Your task to perform on an android device: change notification settings in the gmail app Image 0: 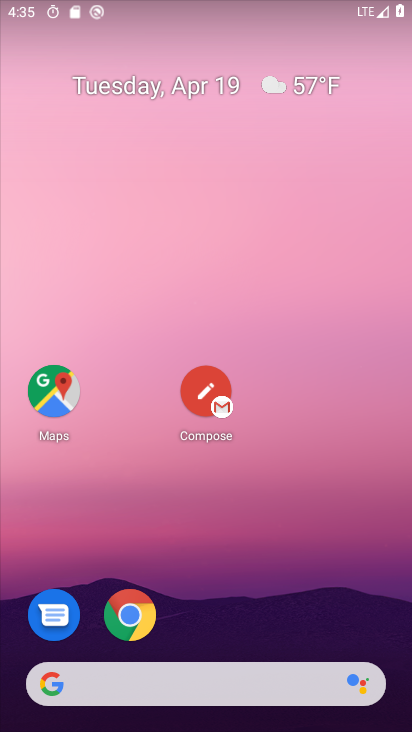
Step 0: drag from (276, 662) to (246, 137)
Your task to perform on an android device: change notification settings in the gmail app Image 1: 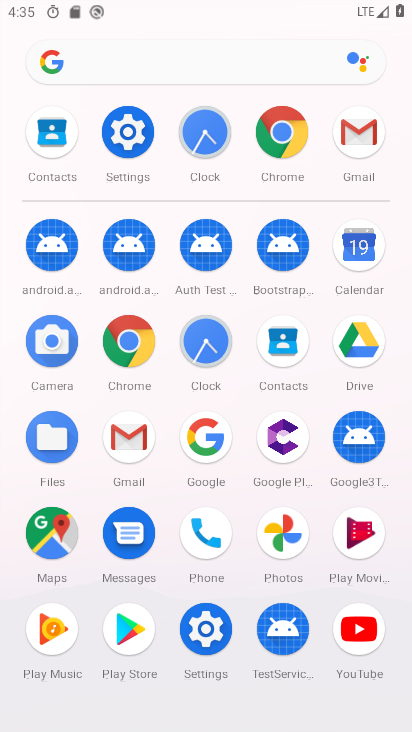
Step 1: click (137, 442)
Your task to perform on an android device: change notification settings in the gmail app Image 2: 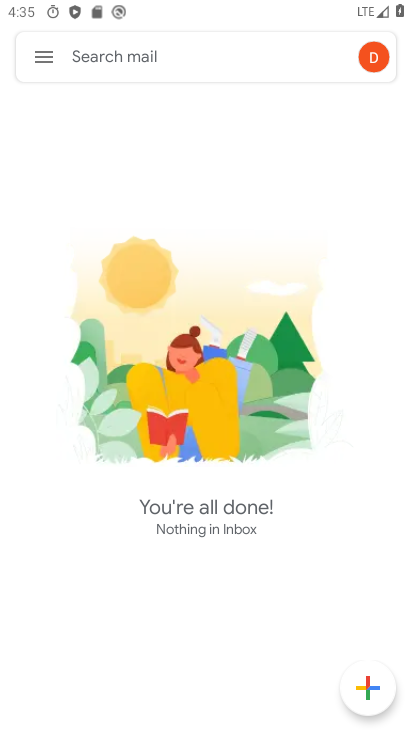
Step 2: click (36, 49)
Your task to perform on an android device: change notification settings in the gmail app Image 3: 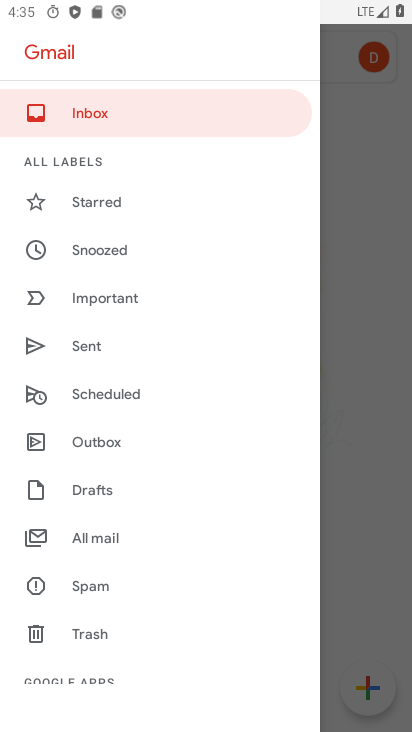
Step 3: drag from (154, 589) to (172, 136)
Your task to perform on an android device: change notification settings in the gmail app Image 4: 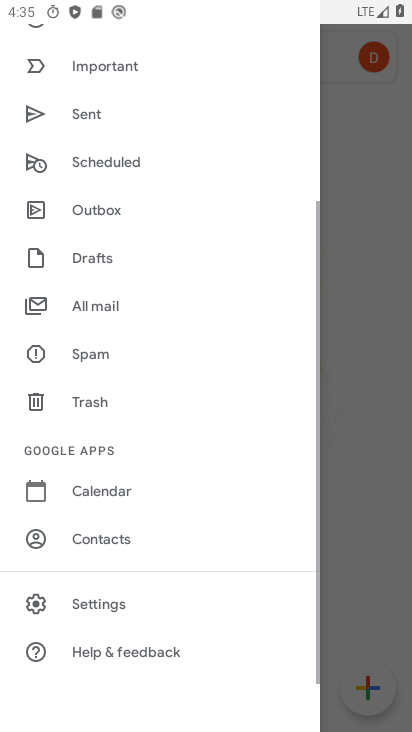
Step 4: click (118, 607)
Your task to perform on an android device: change notification settings in the gmail app Image 5: 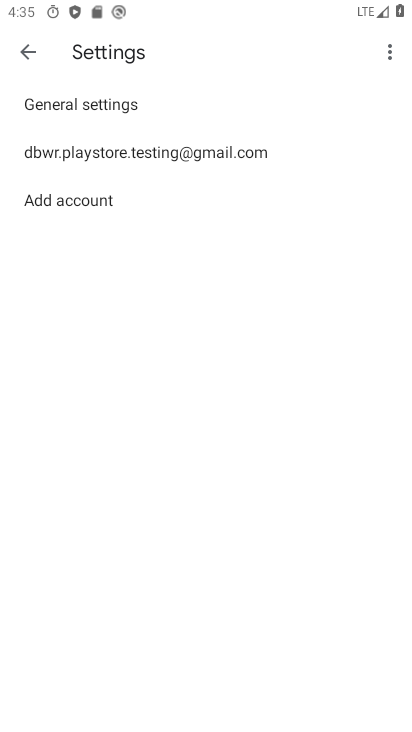
Step 5: click (116, 159)
Your task to perform on an android device: change notification settings in the gmail app Image 6: 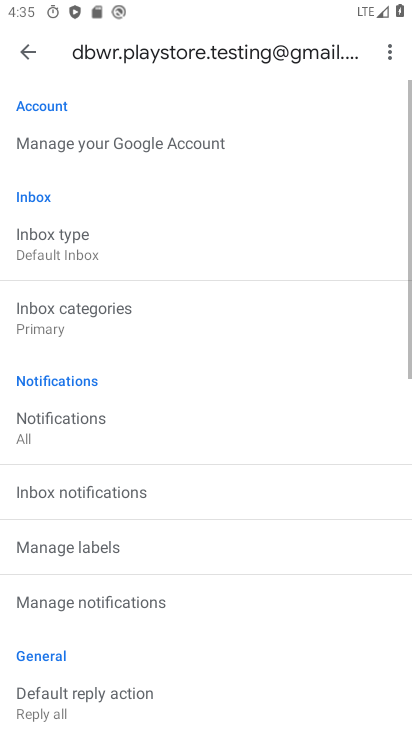
Step 6: drag from (235, 621) to (226, 339)
Your task to perform on an android device: change notification settings in the gmail app Image 7: 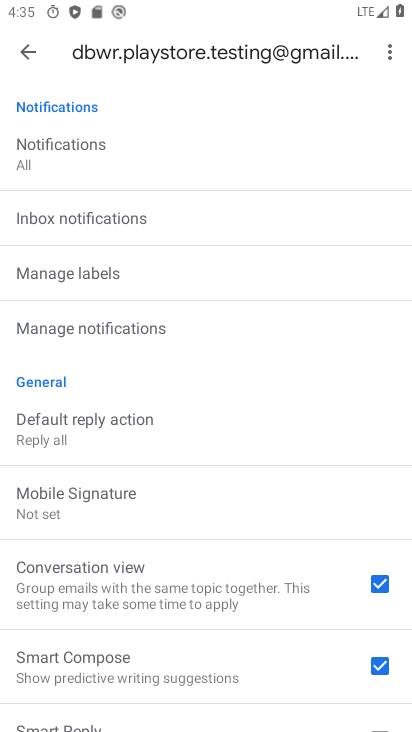
Step 7: click (153, 325)
Your task to perform on an android device: change notification settings in the gmail app Image 8: 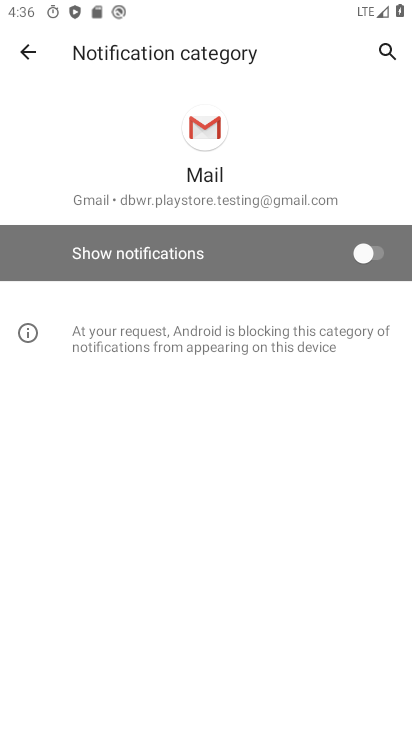
Step 8: click (366, 255)
Your task to perform on an android device: change notification settings in the gmail app Image 9: 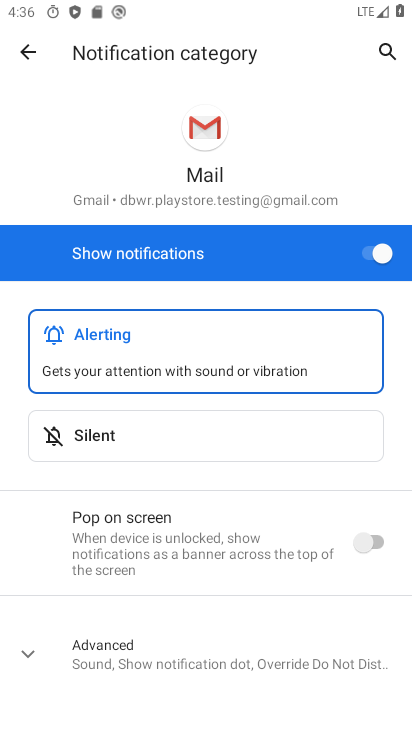
Step 9: task complete